Your task to perform on an android device: turn off location Image 0: 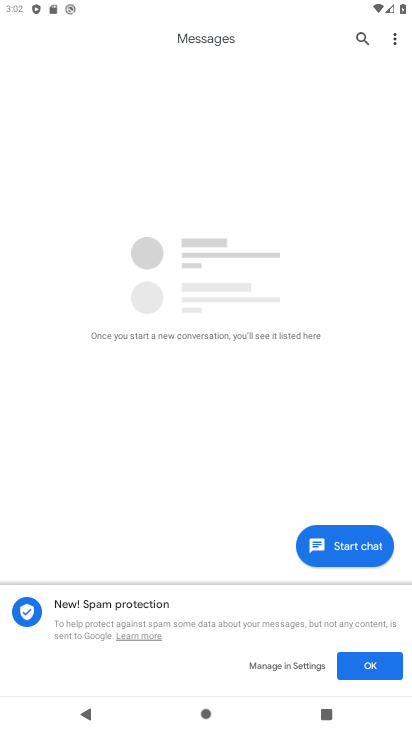
Step 0: press home button
Your task to perform on an android device: turn off location Image 1: 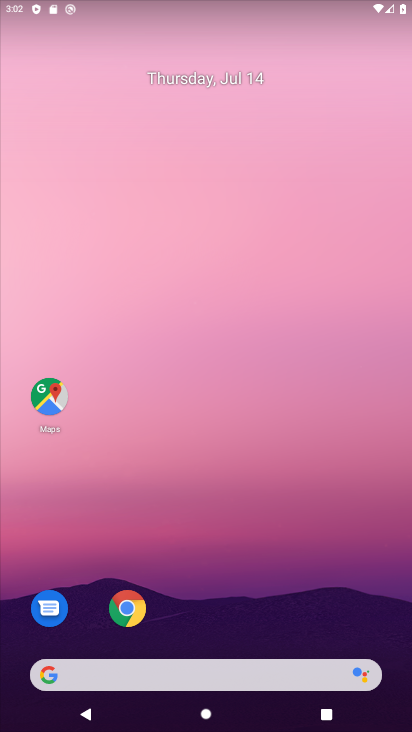
Step 1: drag from (118, 679) to (94, 78)
Your task to perform on an android device: turn off location Image 2: 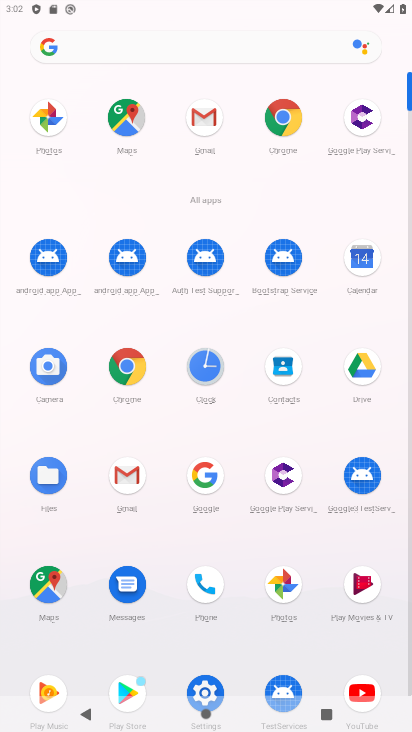
Step 2: click (205, 667)
Your task to perform on an android device: turn off location Image 3: 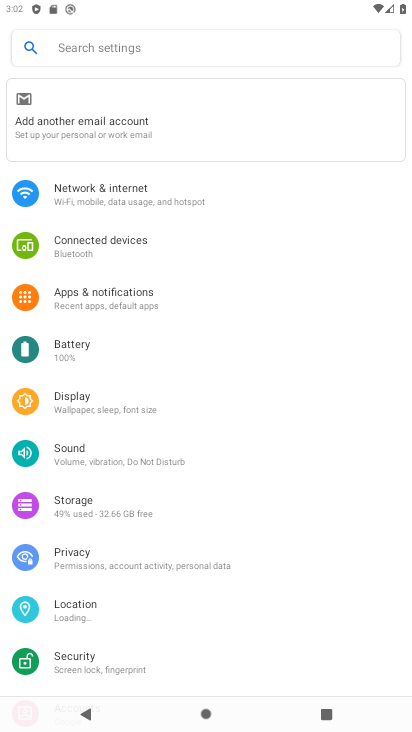
Step 3: click (92, 609)
Your task to perform on an android device: turn off location Image 4: 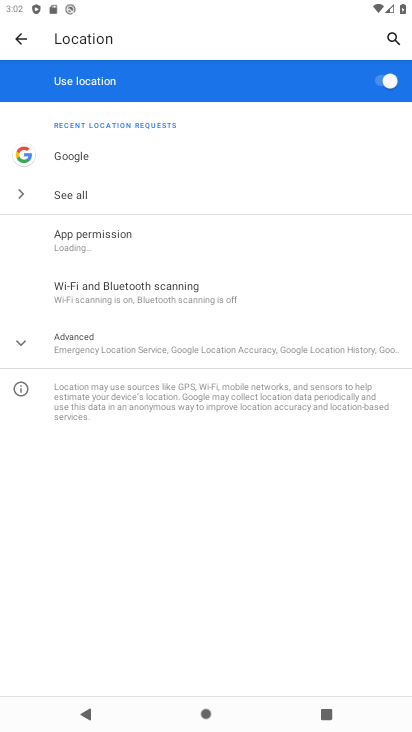
Step 4: click (380, 79)
Your task to perform on an android device: turn off location Image 5: 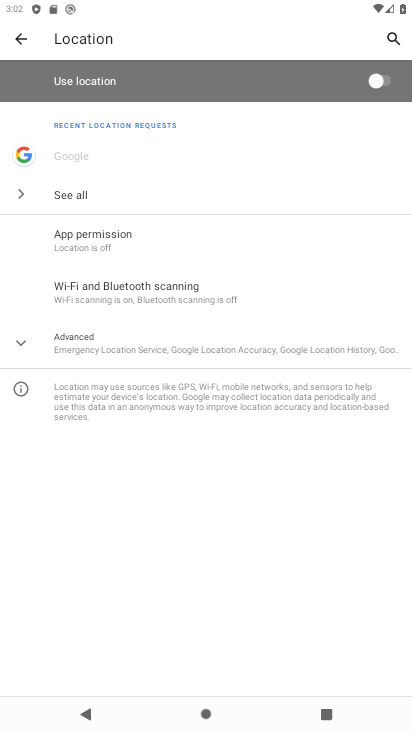
Step 5: task complete